Your task to perform on an android device: turn off improve location accuracy Image 0: 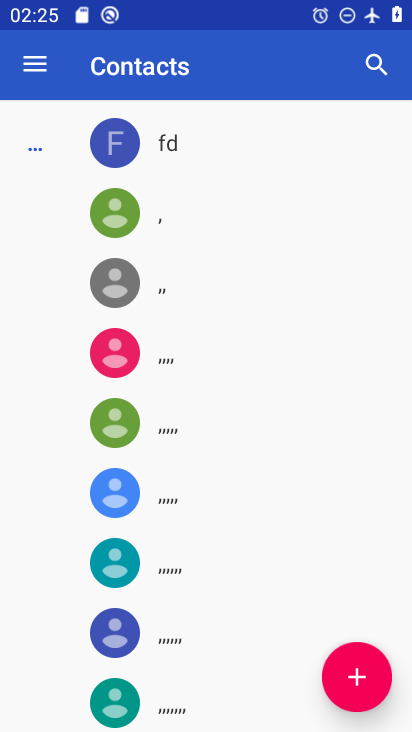
Step 0: press home button
Your task to perform on an android device: turn off improve location accuracy Image 1: 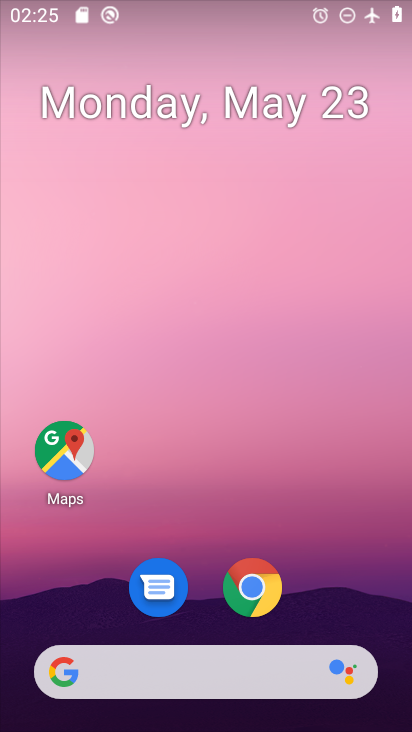
Step 1: drag from (372, 607) to (267, 30)
Your task to perform on an android device: turn off improve location accuracy Image 2: 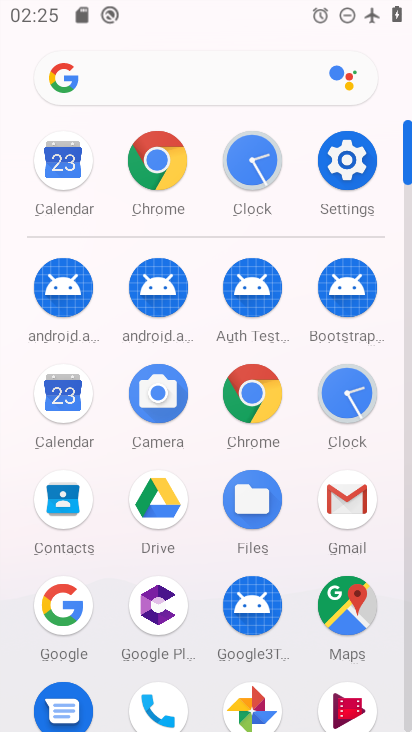
Step 2: click (354, 190)
Your task to perform on an android device: turn off improve location accuracy Image 3: 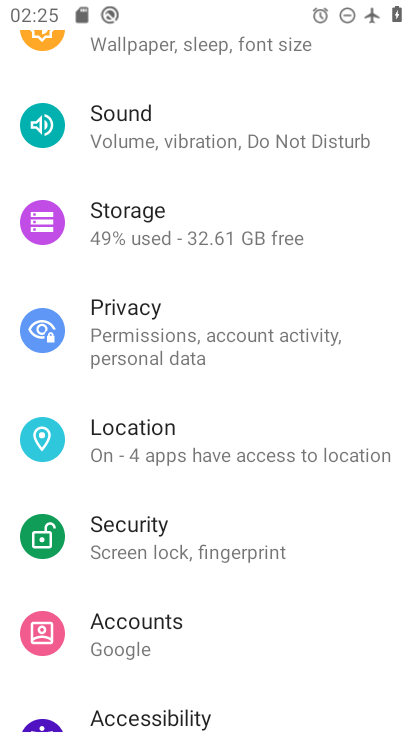
Step 3: click (236, 430)
Your task to perform on an android device: turn off improve location accuracy Image 4: 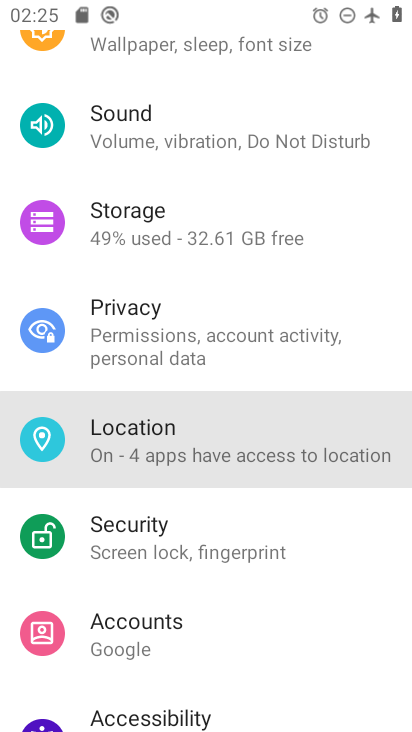
Step 4: click (236, 430)
Your task to perform on an android device: turn off improve location accuracy Image 5: 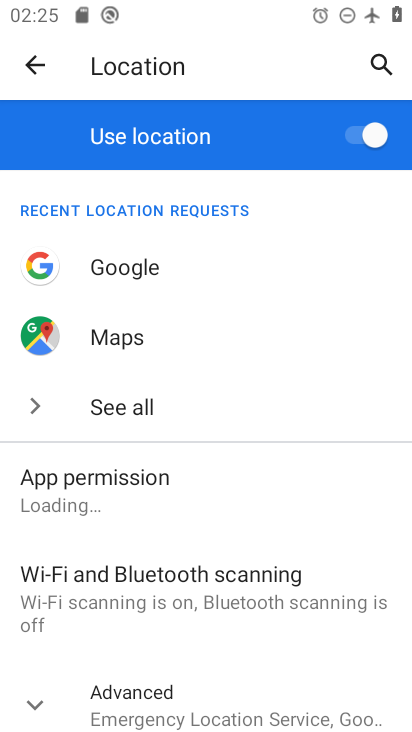
Step 5: drag from (221, 637) to (229, 232)
Your task to perform on an android device: turn off improve location accuracy Image 6: 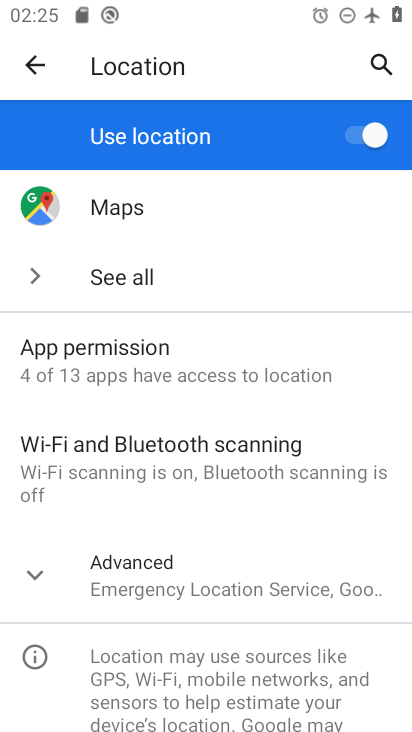
Step 6: click (178, 571)
Your task to perform on an android device: turn off improve location accuracy Image 7: 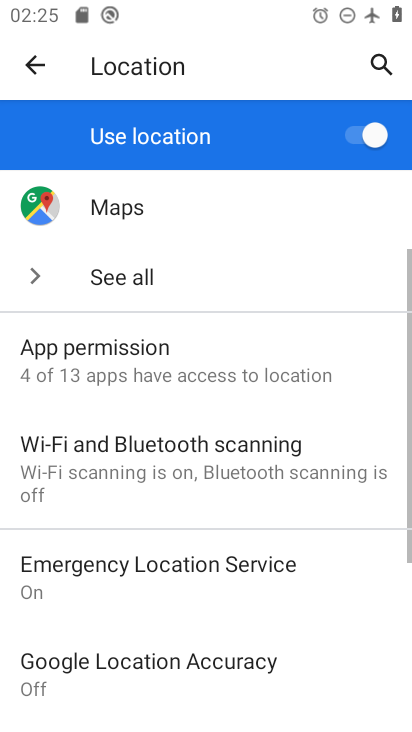
Step 7: task complete